Your task to perform on an android device: Open Google Chrome and open the bookmarks view Image 0: 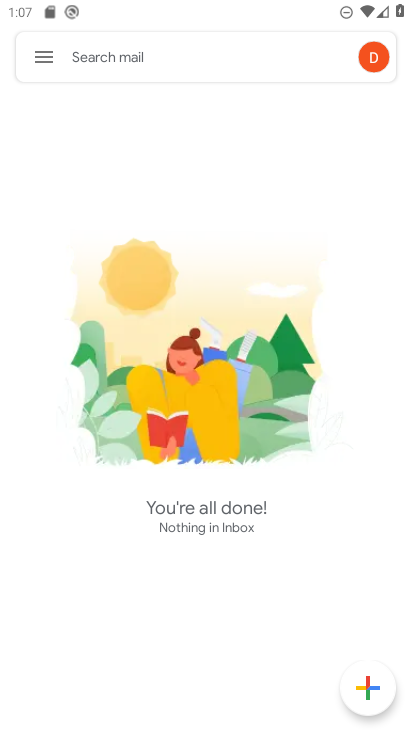
Step 0: press home button
Your task to perform on an android device: Open Google Chrome and open the bookmarks view Image 1: 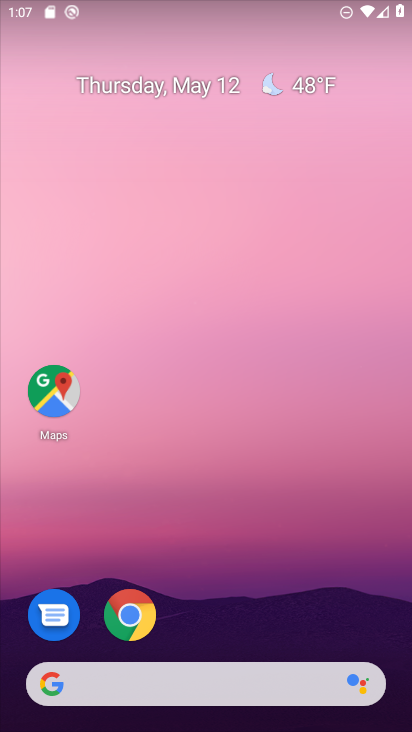
Step 1: drag from (231, 664) to (345, 0)
Your task to perform on an android device: Open Google Chrome and open the bookmarks view Image 2: 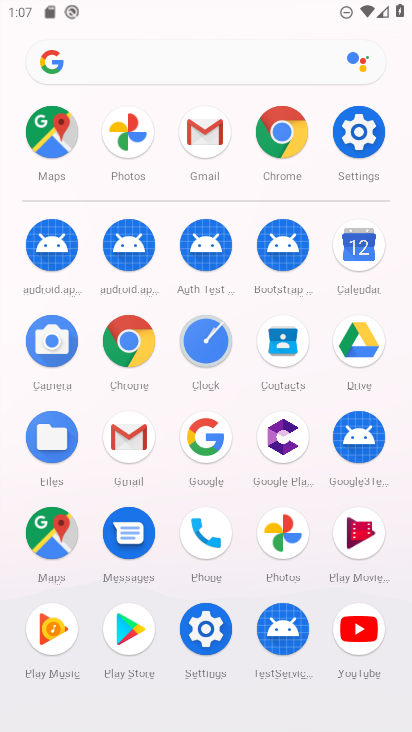
Step 2: click (127, 347)
Your task to perform on an android device: Open Google Chrome and open the bookmarks view Image 3: 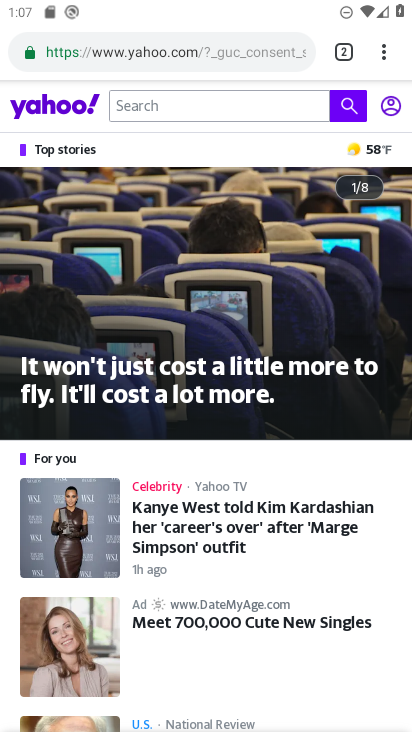
Step 3: task complete